Your task to perform on an android device: search for starred emails in the gmail app Image 0: 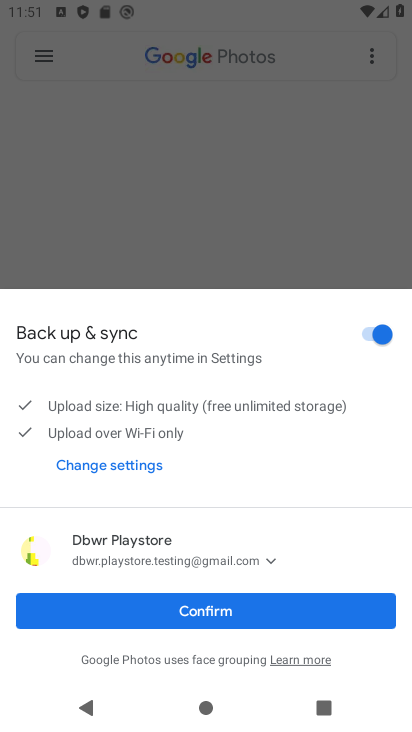
Step 0: press home button
Your task to perform on an android device: search for starred emails in the gmail app Image 1: 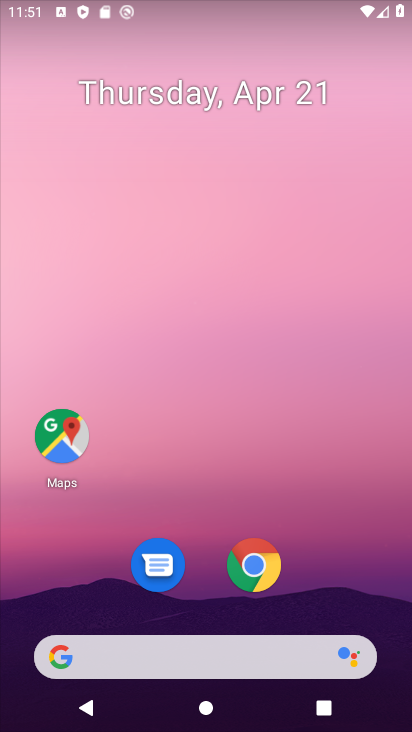
Step 1: drag from (201, 285) to (271, 29)
Your task to perform on an android device: search for starred emails in the gmail app Image 2: 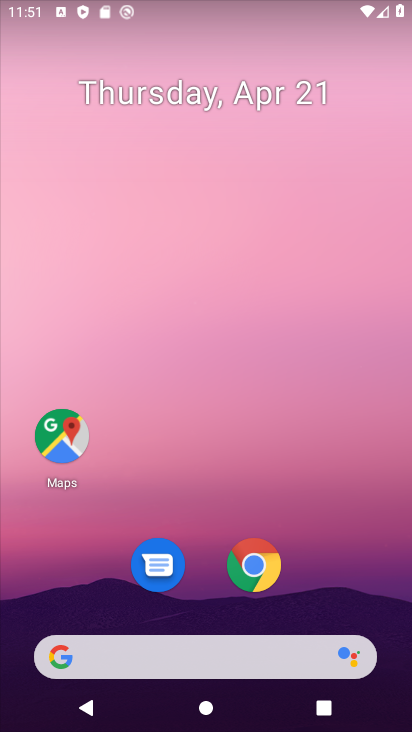
Step 2: drag from (221, 527) to (335, 144)
Your task to perform on an android device: search for starred emails in the gmail app Image 3: 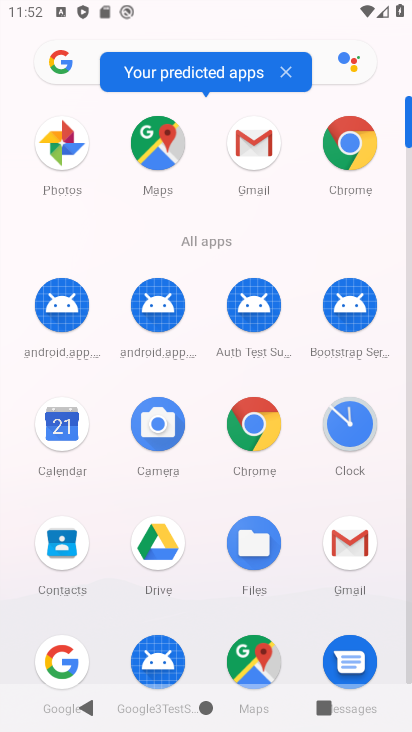
Step 3: click (261, 152)
Your task to perform on an android device: search for starred emails in the gmail app Image 4: 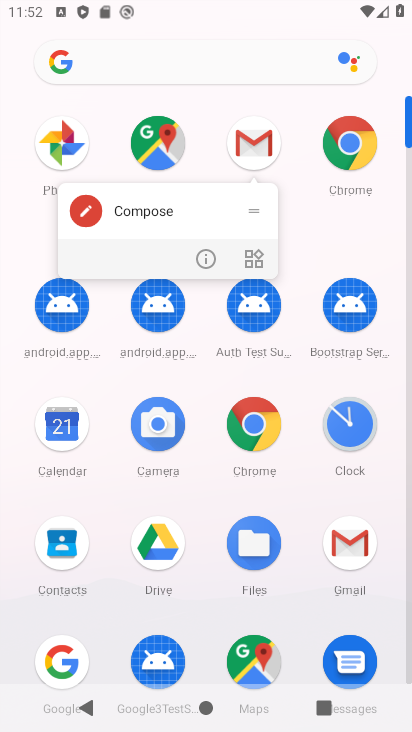
Step 4: click (328, 548)
Your task to perform on an android device: search for starred emails in the gmail app Image 5: 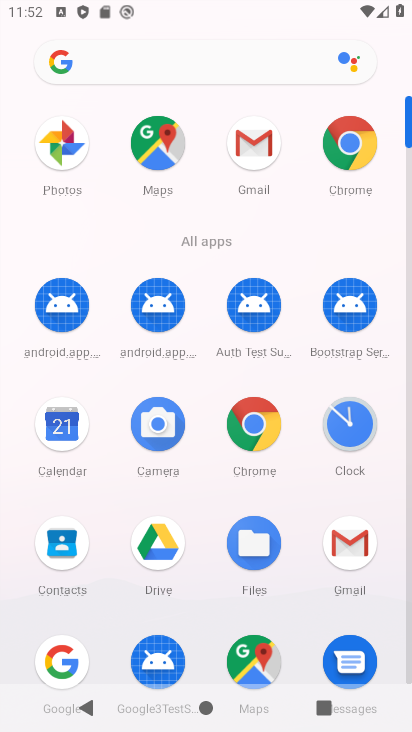
Step 5: click (353, 544)
Your task to perform on an android device: search for starred emails in the gmail app Image 6: 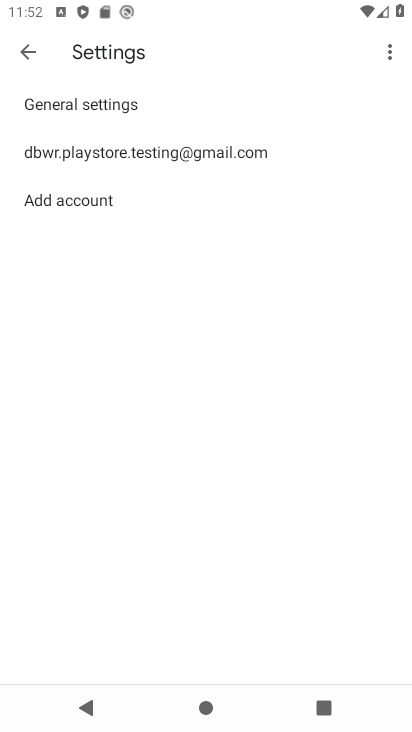
Step 6: click (263, 142)
Your task to perform on an android device: search for starred emails in the gmail app Image 7: 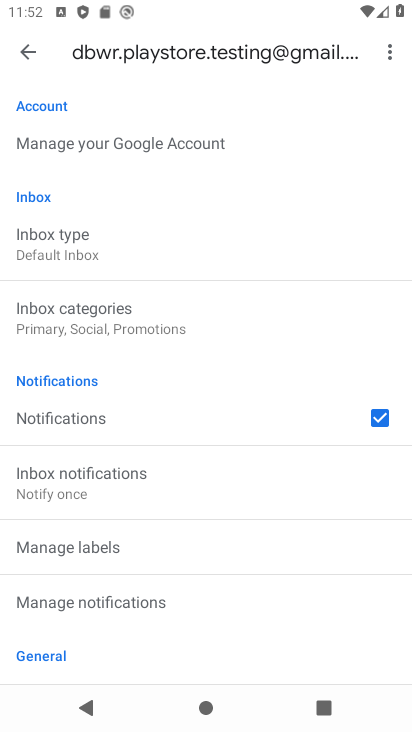
Step 7: click (28, 61)
Your task to perform on an android device: search for starred emails in the gmail app Image 8: 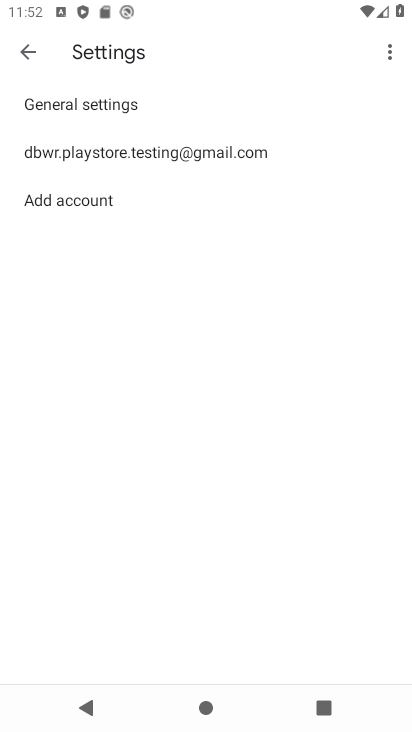
Step 8: click (94, 163)
Your task to perform on an android device: search for starred emails in the gmail app Image 9: 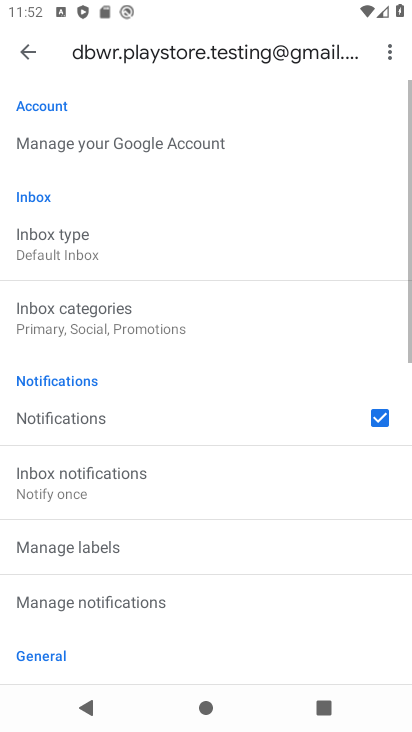
Step 9: click (24, 55)
Your task to perform on an android device: search for starred emails in the gmail app Image 10: 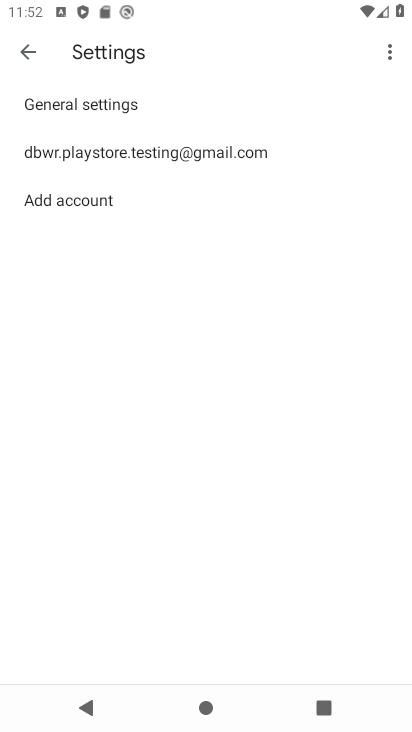
Step 10: click (24, 55)
Your task to perform on an android device: search for starred emails in the gmail app Image 11: 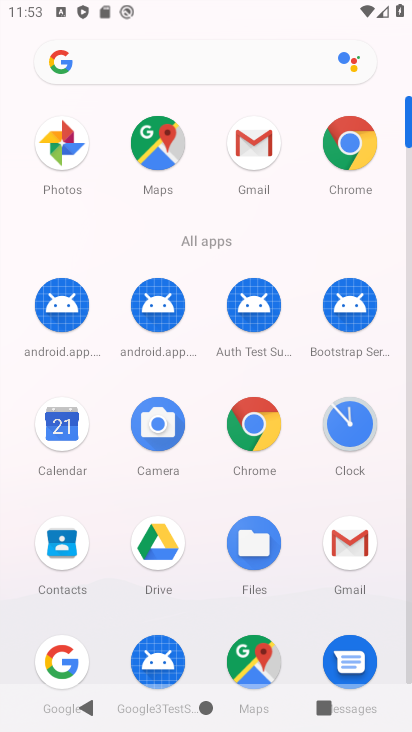
Step 11: click (244, 163)
Your task to perform on an android device: search for starred emails in the gmail app Image 12: 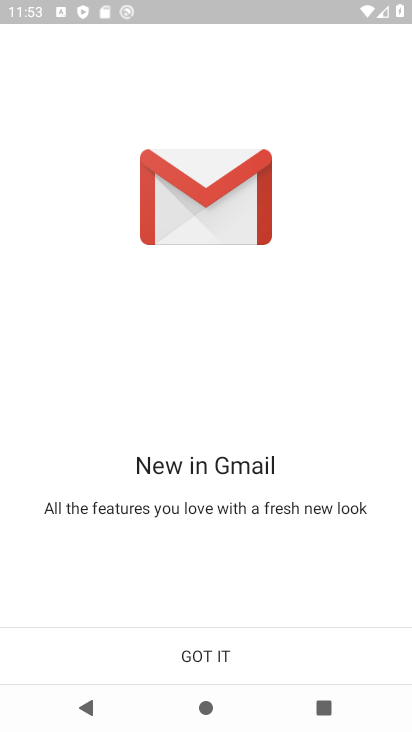
Step 12: click (192, 673)
Your task to perform on an android device: search for starred emails in the gmail app Image 13: 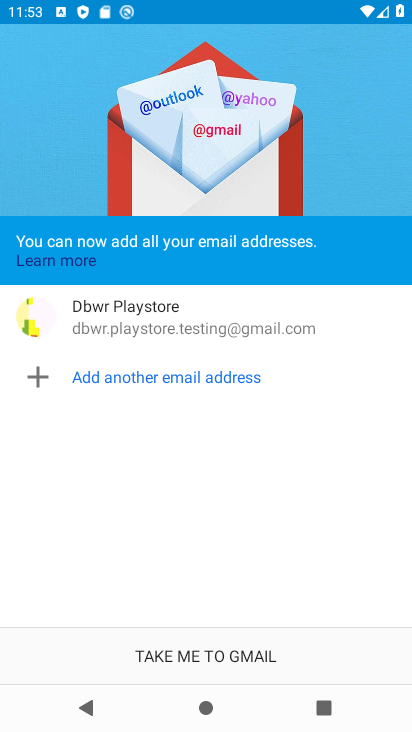
Step 13: click (210, 656)
Your task to perform on an android device: search for starred emails in the gmail app Image 14: 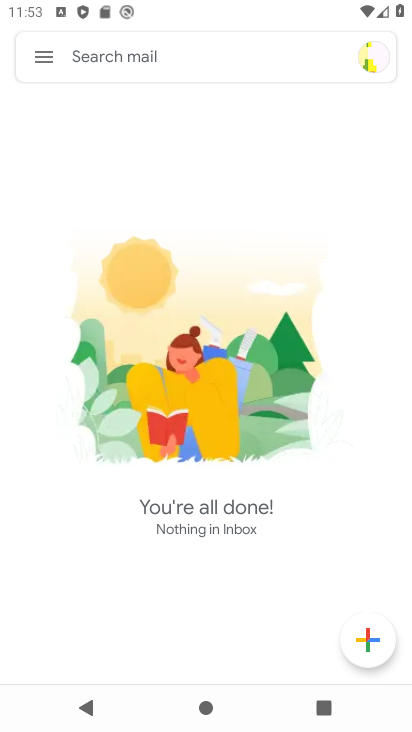
Step 14: click (33, 66)
Your task to perform on an android device: search for starred emails in the gmail app Image 15: 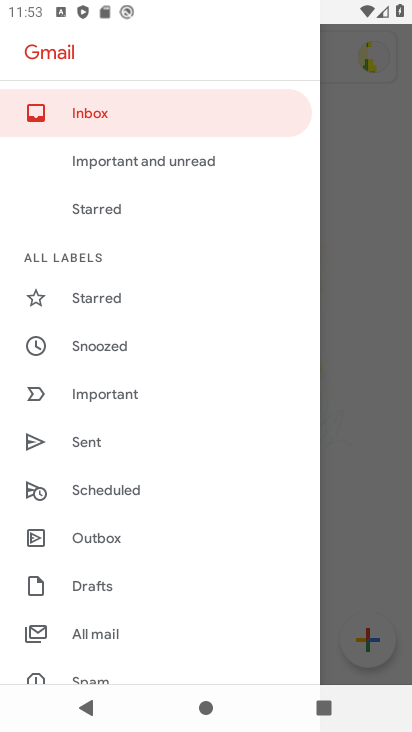
Step 15: click (99, 306)
Your task to perform on an android device: search for starred emails in the gmail app Image 16: 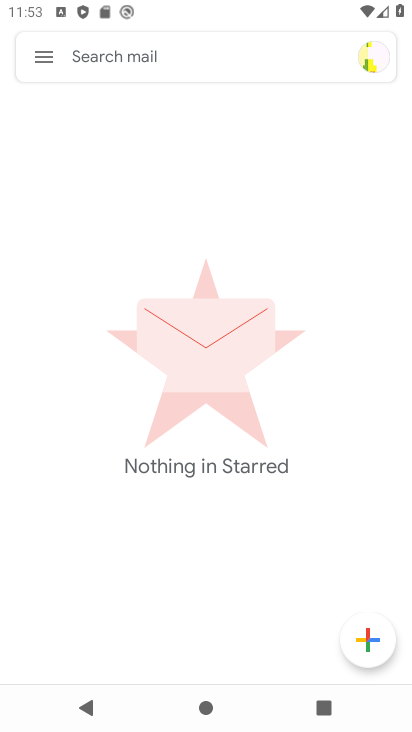
Step 16: task complete